Your task to perform on an android device: see creations saved in the google photos Image 0: 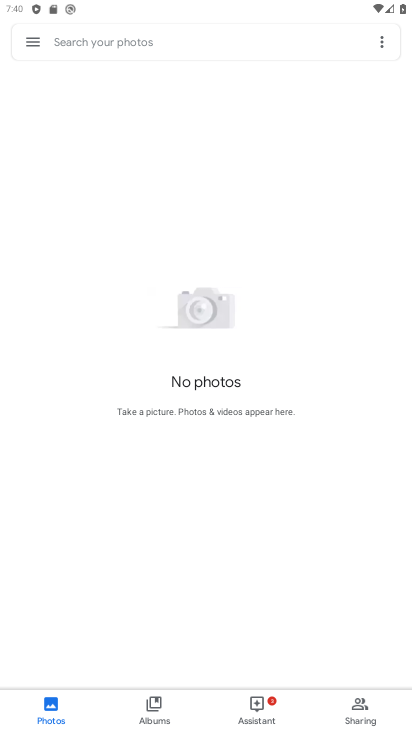
Step 0: press home button
Your task to perform on an android device: see creations saved in the google photos Image 1: 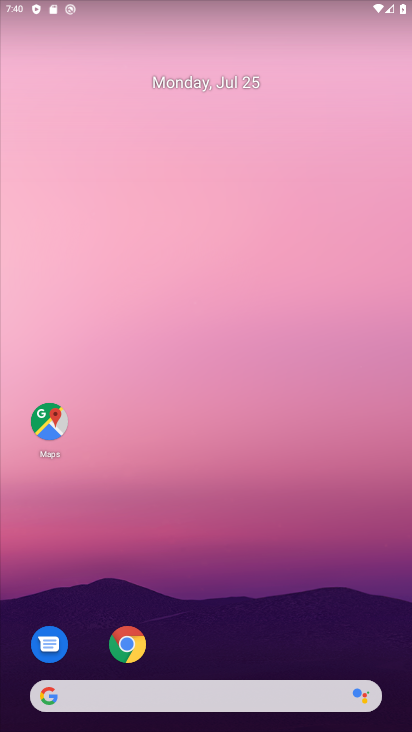
Step 1: drag from (186, 568) to (217, 143)
Your task to perform on an android device: see creations saved in the google photos Image 2: 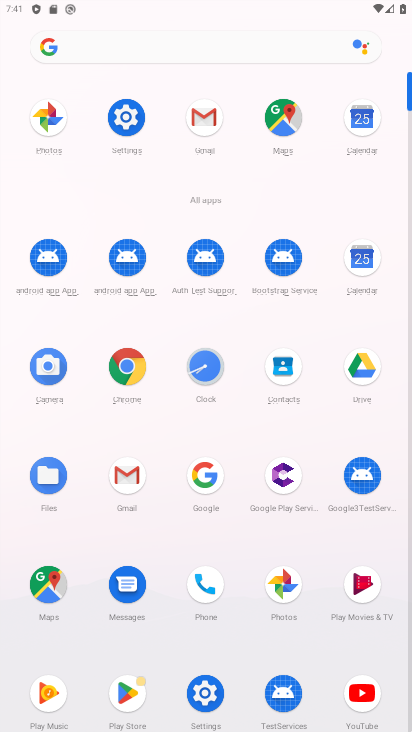
Step 2: click (282, 593)
Your task to perform on an android device: see creations saved in the google photos Image 3: 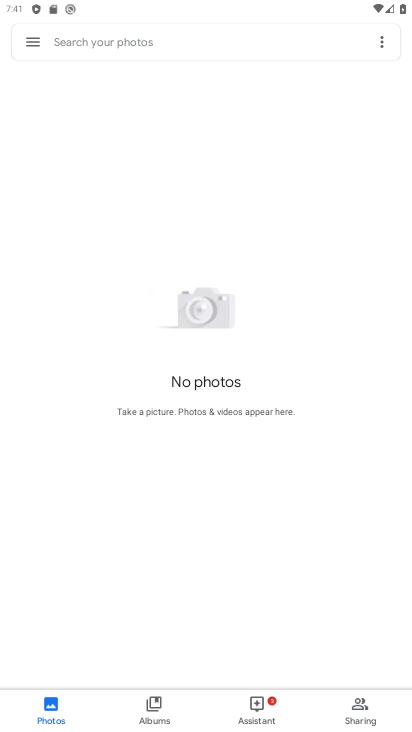
Step 3: click (105, 41)
Your task to perform on an android device: see creations saved in the google photos Image 4: 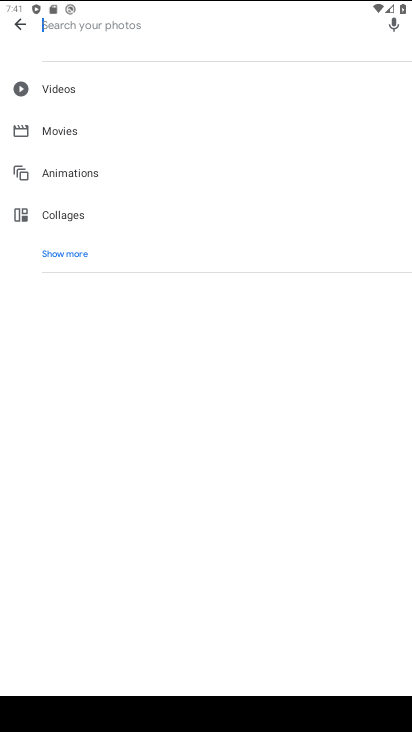
Step 4: click (72, 263)
Your task to perform on an android device: see creations saved in the google photos Image 5: 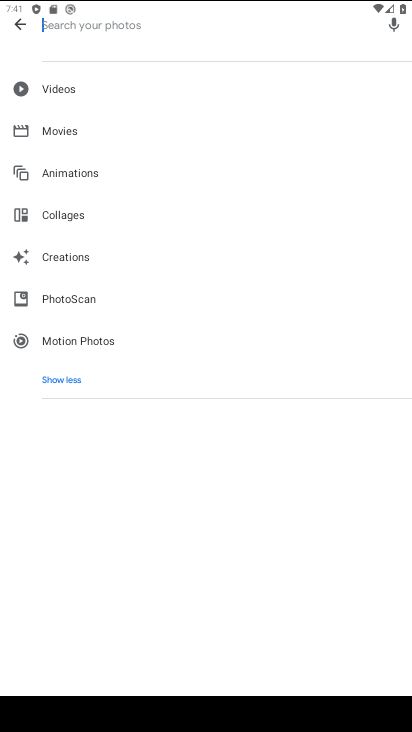
Step 5: click (68, 253)
Your task to perform on an android device: see creations saved in the google photos Image 6: 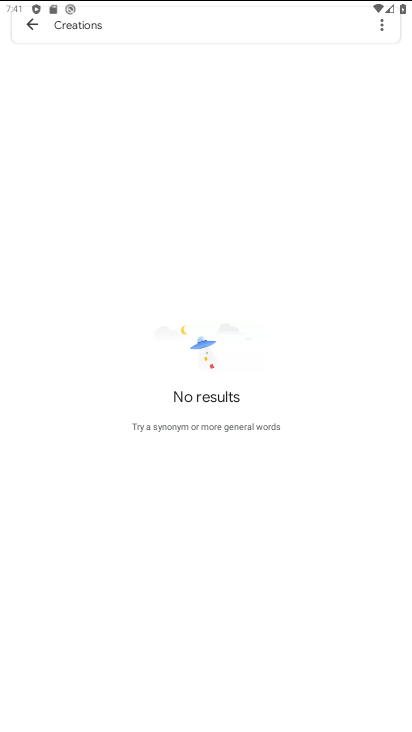
Step 6: task complete